Your task to perform on an android device: delete a single message in the gmail app Image 0: 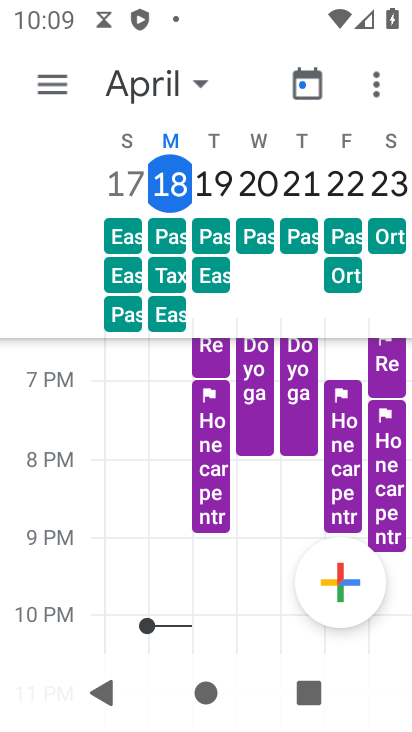
Step 0: press home button
Your task to perform on an android device: delete a single message in the gmail app Image 1: 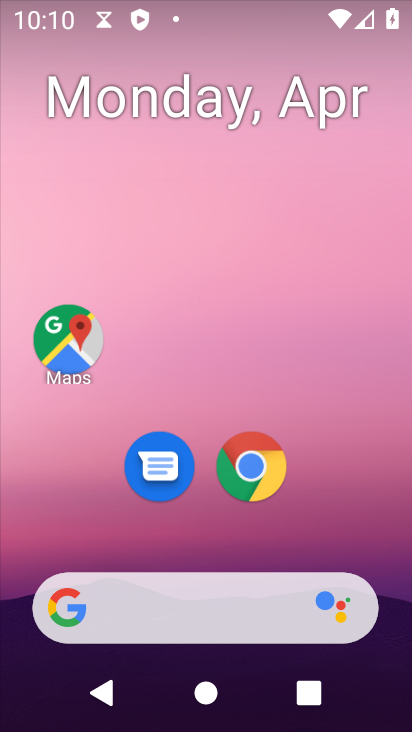
Step 1: drag from (301, 546) to (296, 135)
Your task to perform on an android device: delete a single message in the gmail app Image 2: 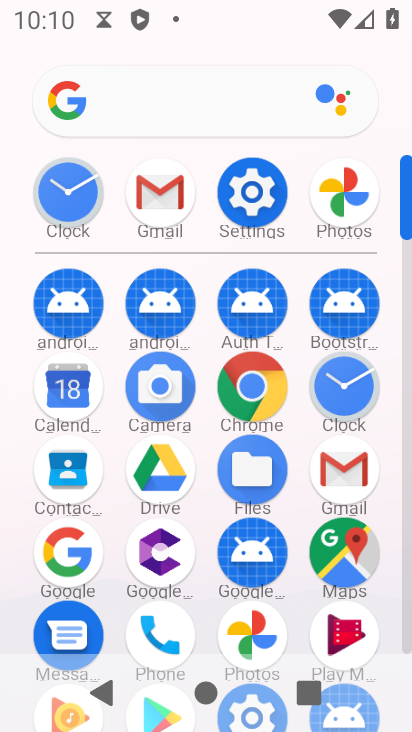
Step 2: click (169, 190)
Your task to perform on an android device: delete a single message in the gmail app Image 3: 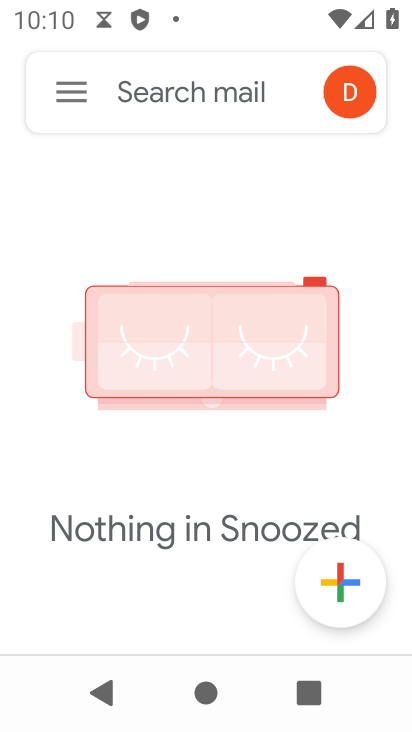
Step 3: click (76, 98)
Your task to perform on an android device: delete a single message in the gmail app Image 4: 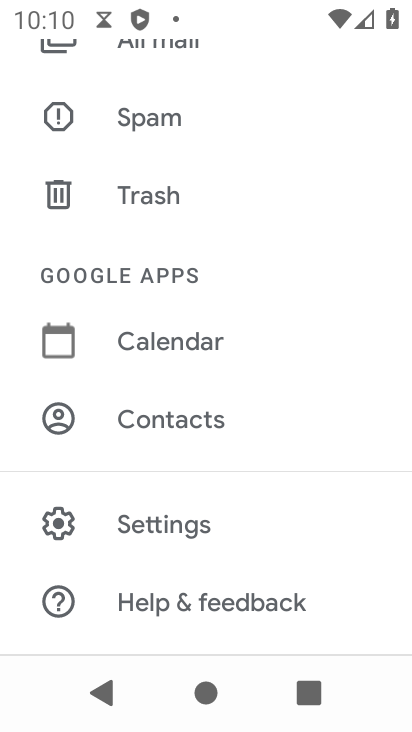
Step 4: drag from (231, 286) to (262, 385)
Your task to perform on an android device: delete a single message in the gmail app Image 5: 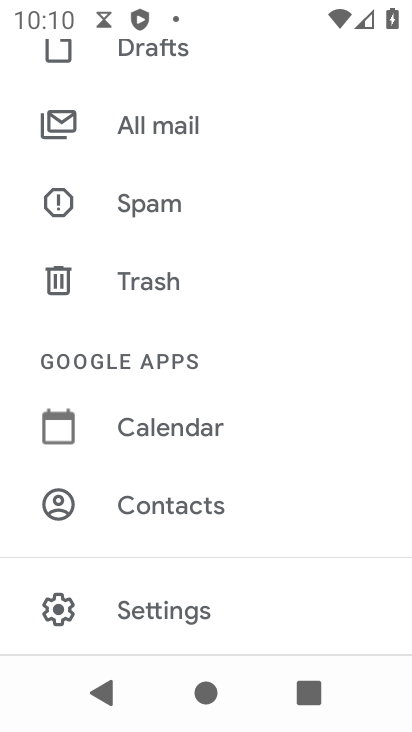
Step 5: drag from (214, 275) to (205, 358)
Your task to perform on an android device: delete a single message in the gmail app Image 6: 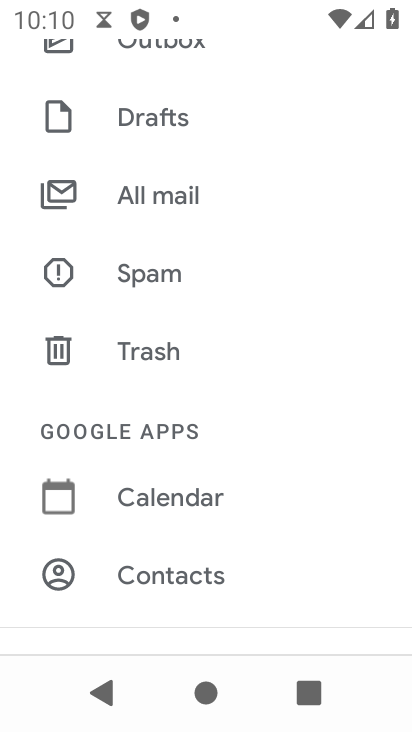
Step 6: drag from (215, 284) to (246, 371)
Your task to perform on an android device: delete a single message in the gmail app Image 7: 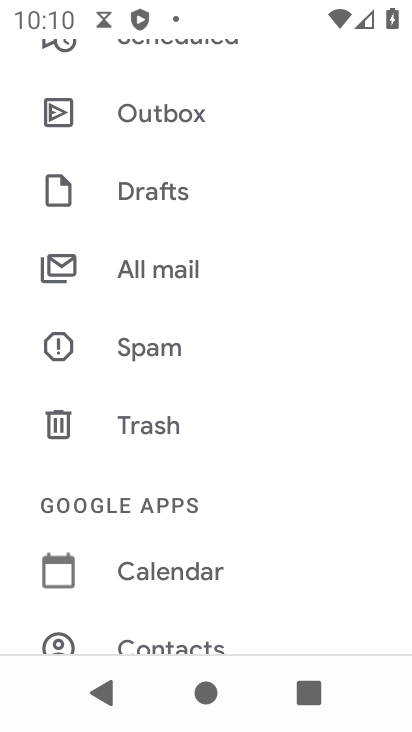
Step 7: drag from (226, 234) to (248, 336)
Your task to perform on an android device: delete a single message in the gmail app Image 8: 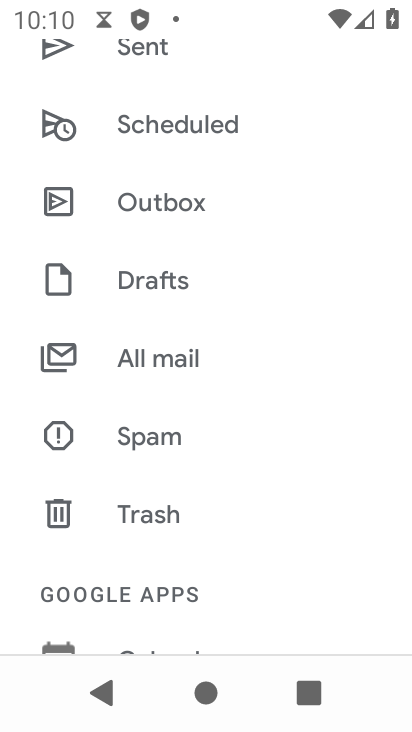
Step 8: drag from (225, 220) to (227, 322)
Your task to perform on an android device: delete a single message in the gmail app Image 9: 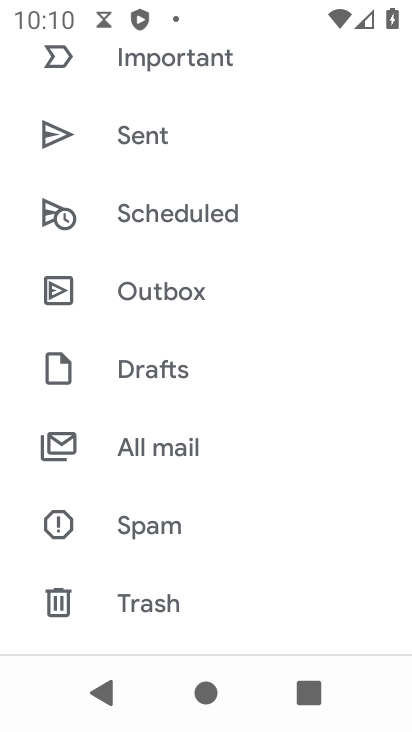
Step 9: drag from (212, 172) to (217, 281)
Your task to perform on an android device: delete a single message in the gmail app Image 10: 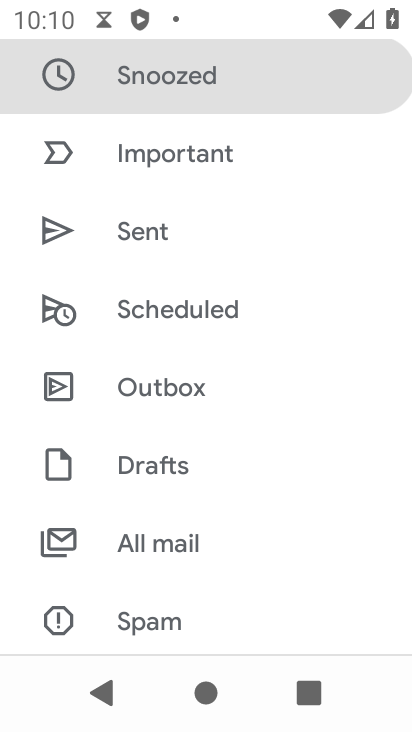
Step 10: drag from (226, 242) to (246, 340)
Your task to perform on an android device: delete a single message in the gmail app Image 11: 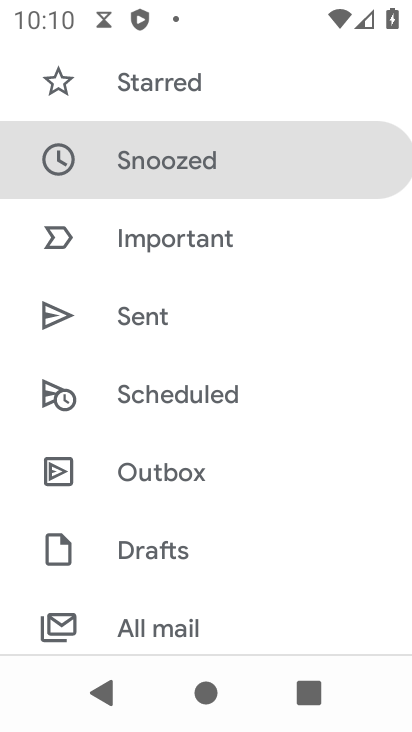
Step 11: drag from (259, 233) to (265, 417)
Your task to perform on an android device: delete a single message in the gmail app Image 12: 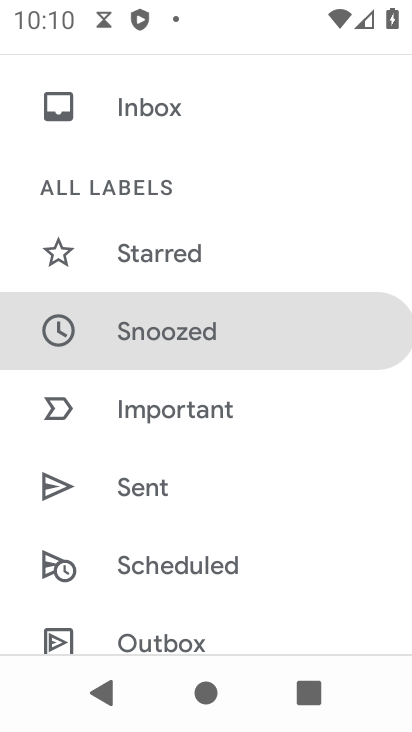
Step 12: drag from (232, 240) to (252, 373)
Your task to perform on an android device: delete a single message in the gmail app Image 13: 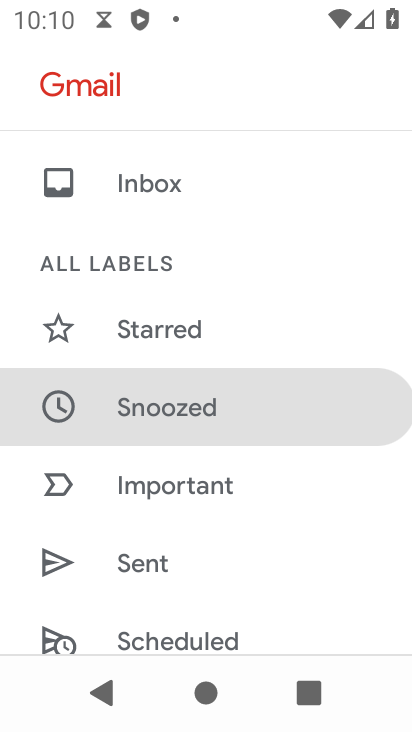
Step 13: click (151, 196)
Your task to perform on an android device: delete a single message in the gmail app Image 14: 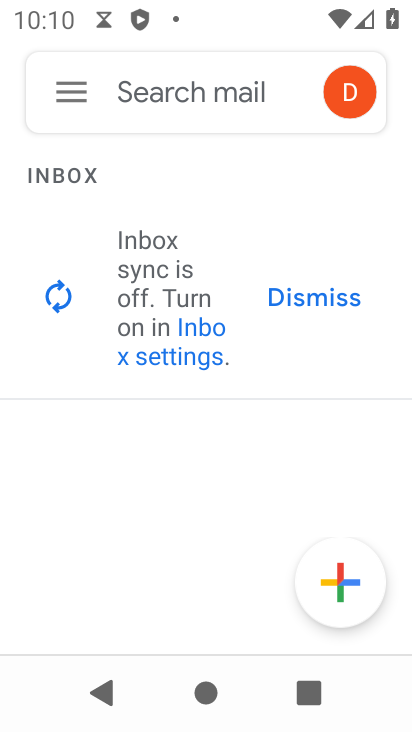
Step 14: task complete